Your task to perform on an android device: find which apps use the phone's location Image 0: 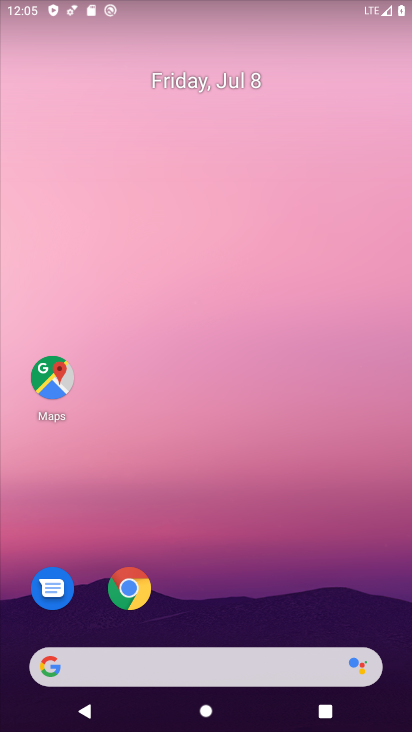
Step 0: press home button
Your task to perform on an android device: find which apps use the phone's location Image 1: 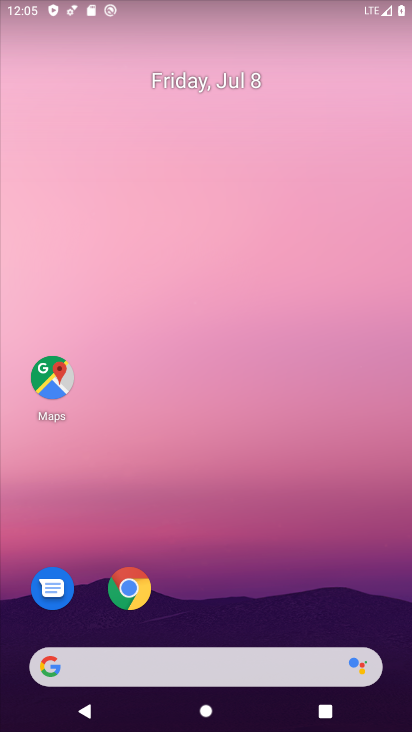
Step 1: drag from (206, 623) to (203, 88)
Your task to perform on an android device: find which apps use the phone's location Image 2: 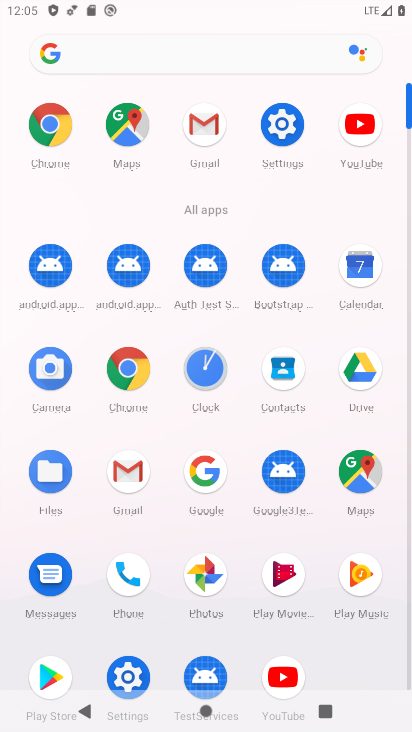
Step 2: click (274, 116)
Your task to perform on an android device: find which apps use the phone's location Image 3: 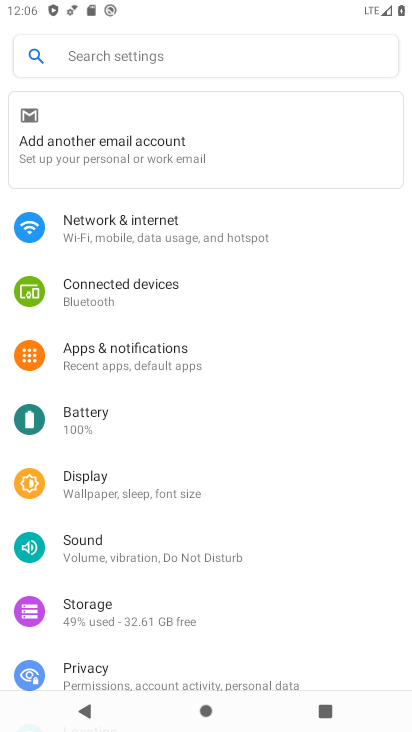
Step 3: drag from (174, 659) to (165, 183)
Your task to perform on an android device: find which apps use the phone's location Image 4: 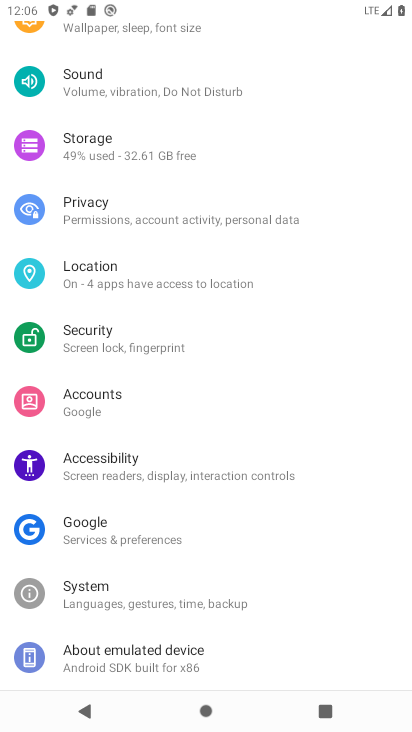
Step 4: click (121, 271)
Your task to perform on an android device: find which apps use the phone's location Image 5: 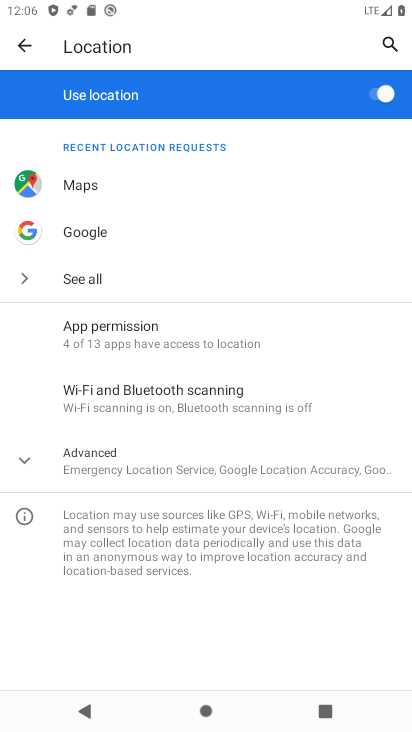
Step 5: click (97, 328)
Your task to perform on an android device: find which apps use the phone's location Image 6: 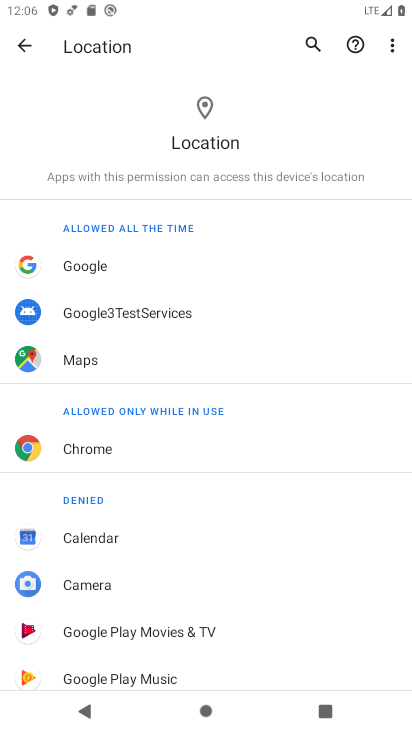
Step 6: task complete